Your task to perform on an android device: change notifications settings Image 0: 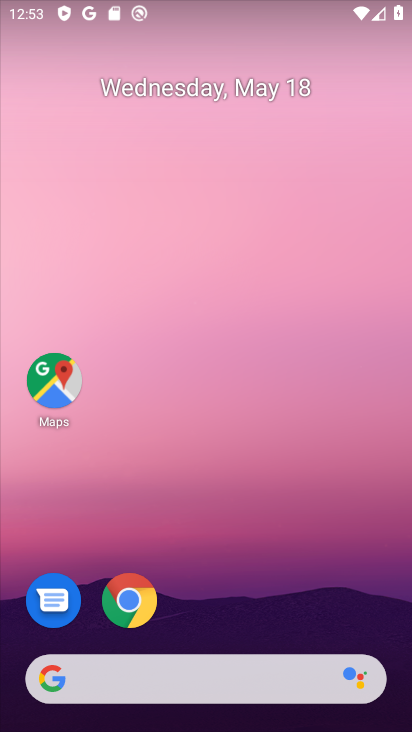
Step 0: drag from (192, 646) to (204, 181)
Your task to perform on an android device: change notifications settings Image 1: 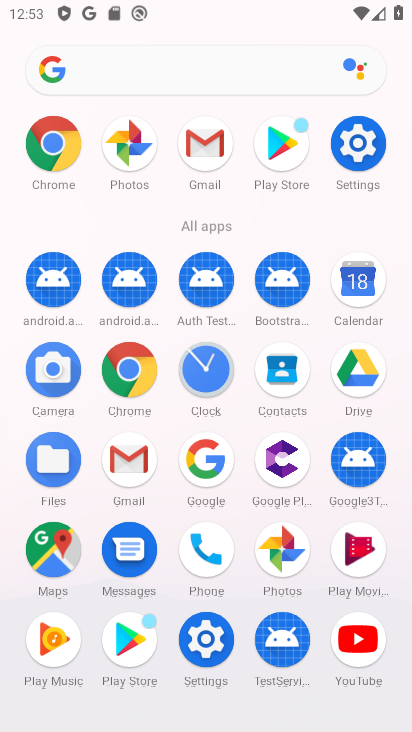
Step 1: click (358, 146)
Your task to perform on an android device: change notifications settings Image 2: 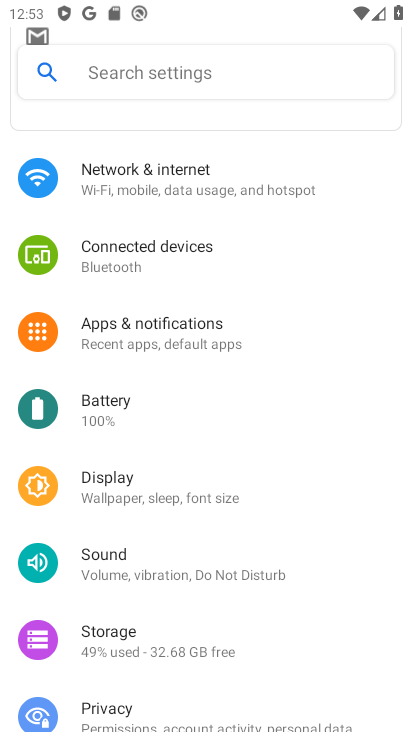
Step 2: click (127, 338)
Your task to perform on an android device: change notifications settings Image 3: 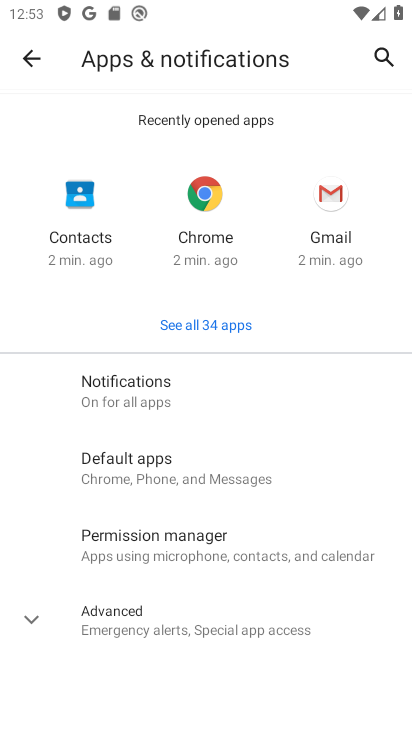
Step 3: task complete